Your task to perform on an android device: What's the news in Ecuador? Image 0: 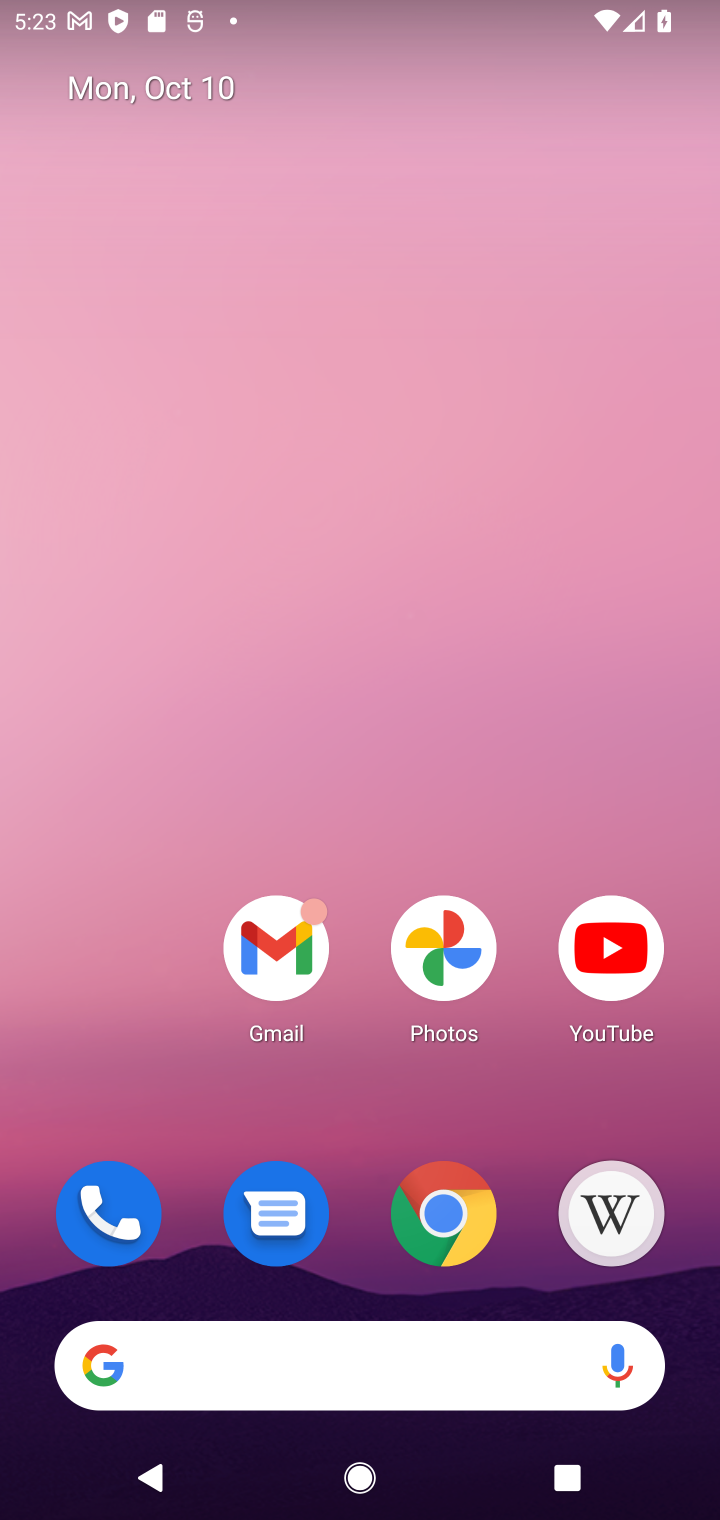
Step 0: click (245, 1388)
Your task to perform on an android device: What's the news in Ecuador? Image 1: 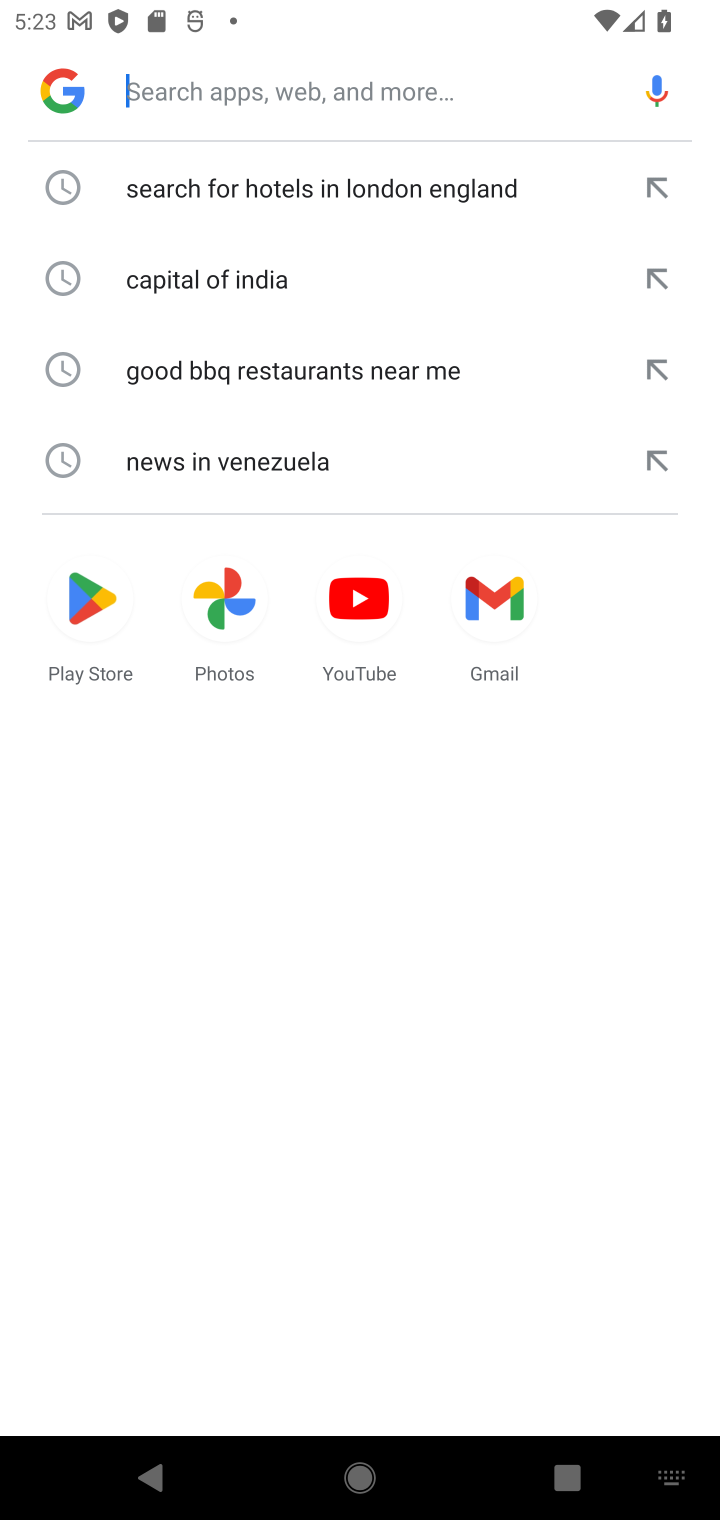
Step 1: click (219, 71)
Your task to perform on an android device: What's the news in Ecuador? Image 2: 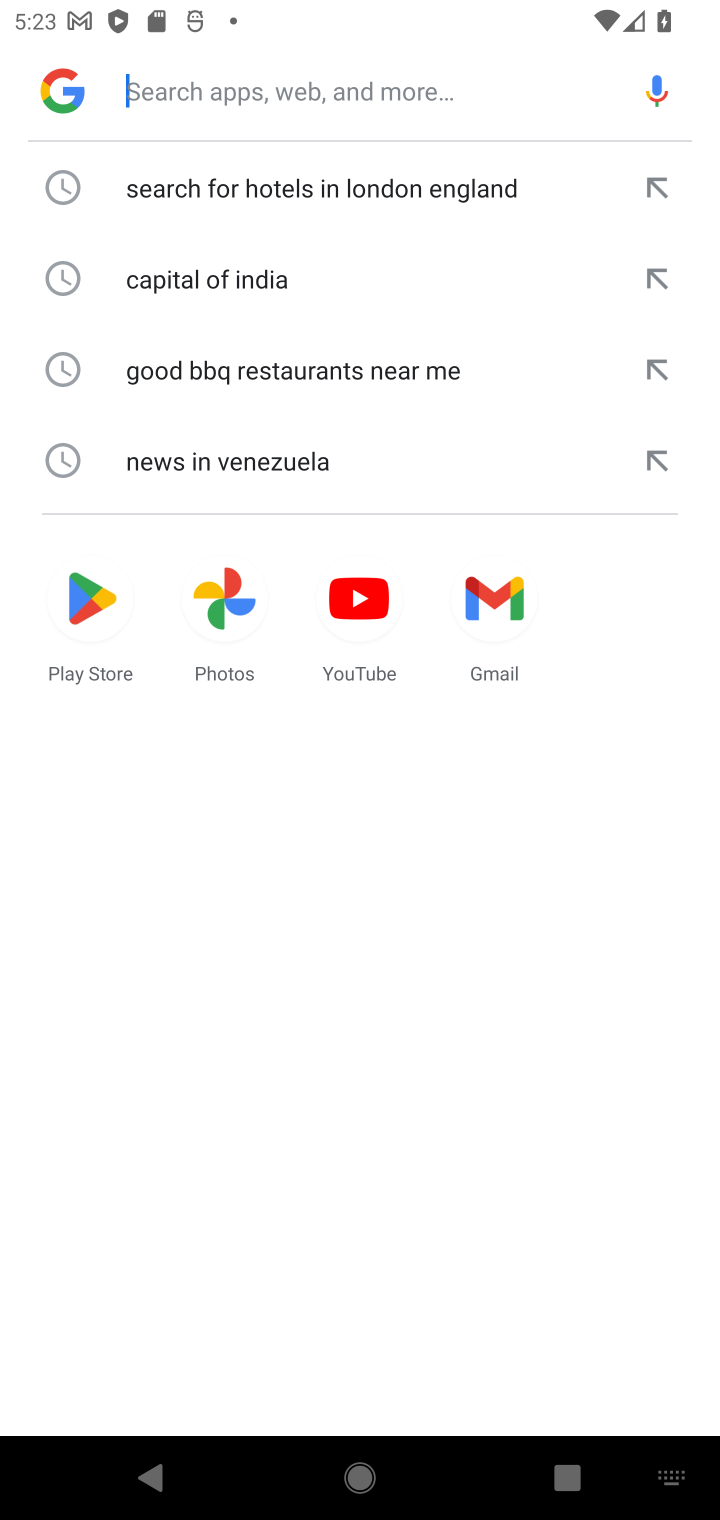
Step 2: type "What's the news in Ecuador"
Your task to perform on an android device: What's the news in Ecuador? Image 3: 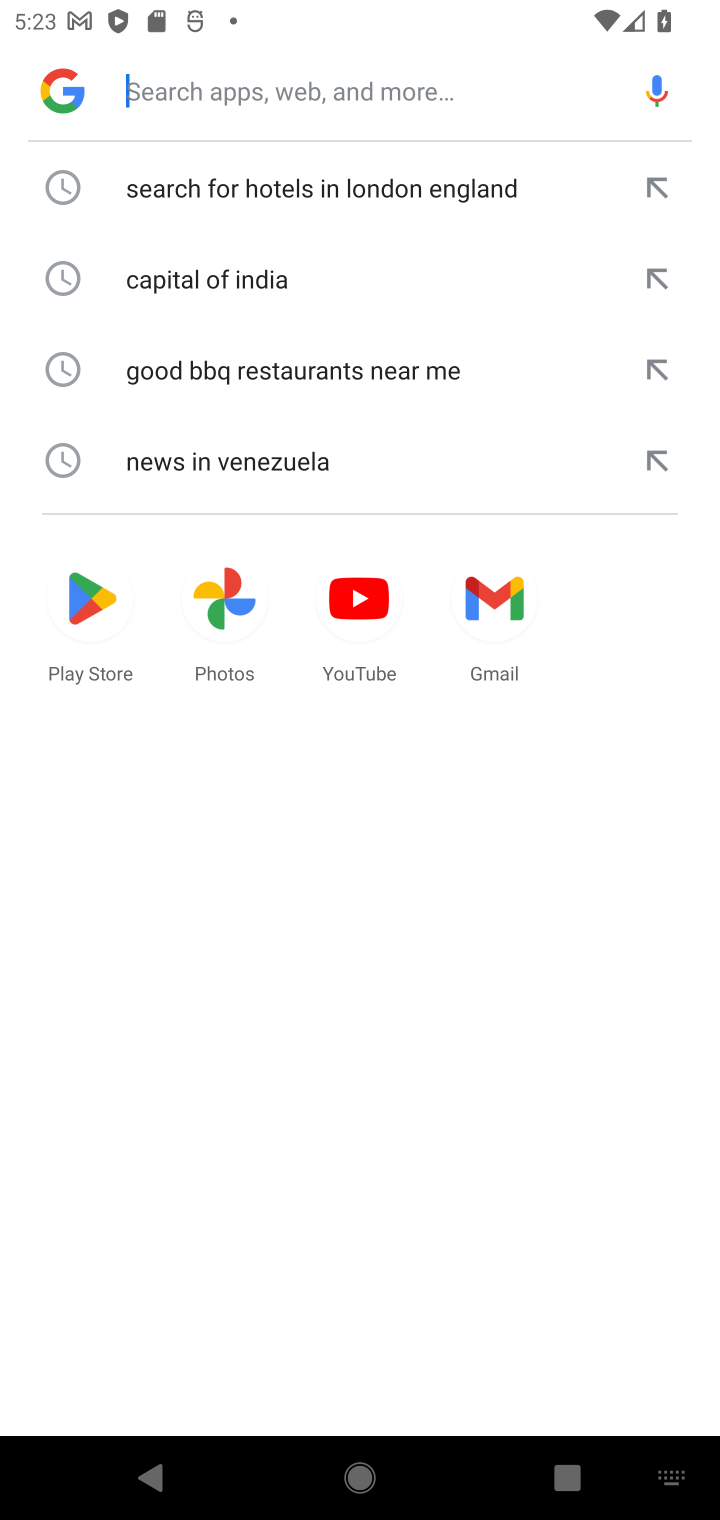
Step 3: click (540, 903)
Your task to perform on an android device: What's the news in Ecuador? Image 4: 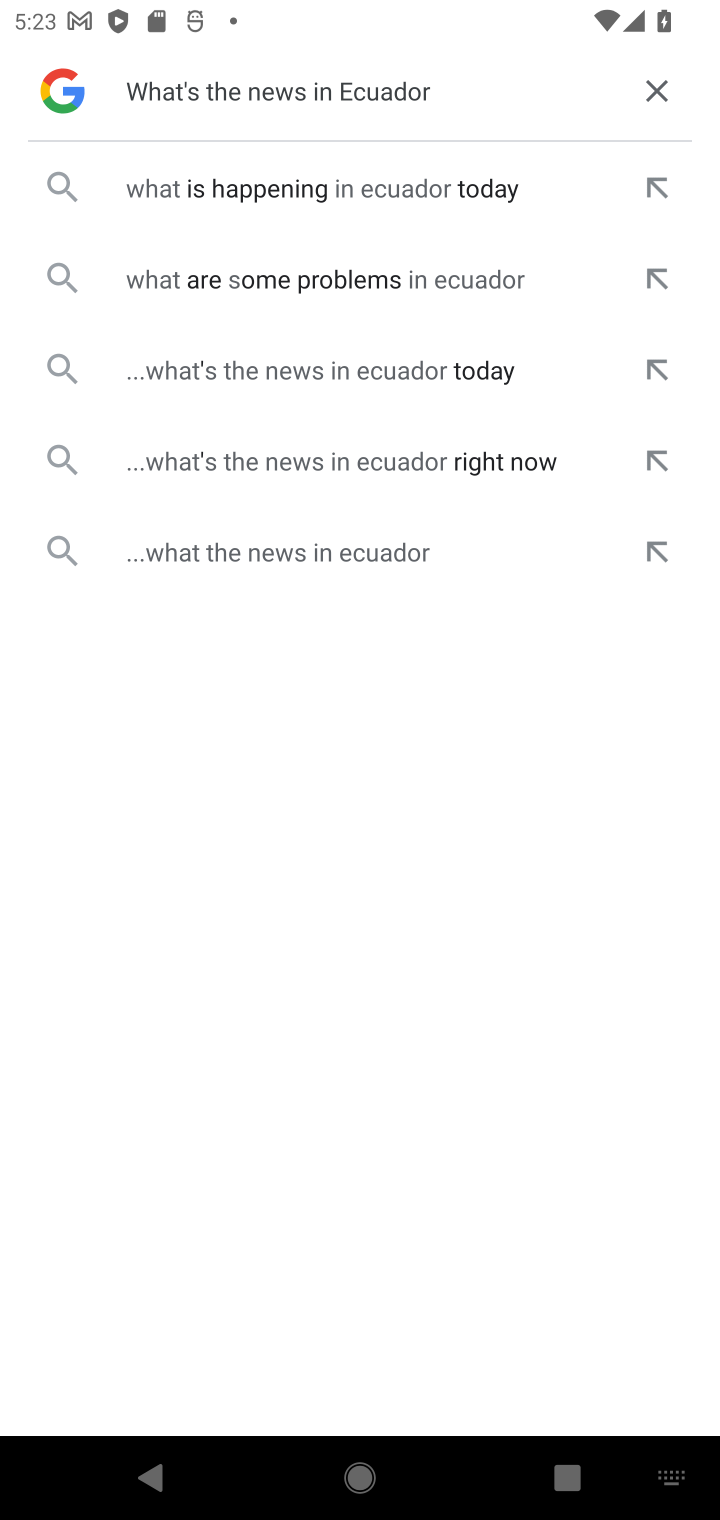
Step 4: click (355, 387)
Your task to perform on an android device: What's the news in Ecuador? Image 5: 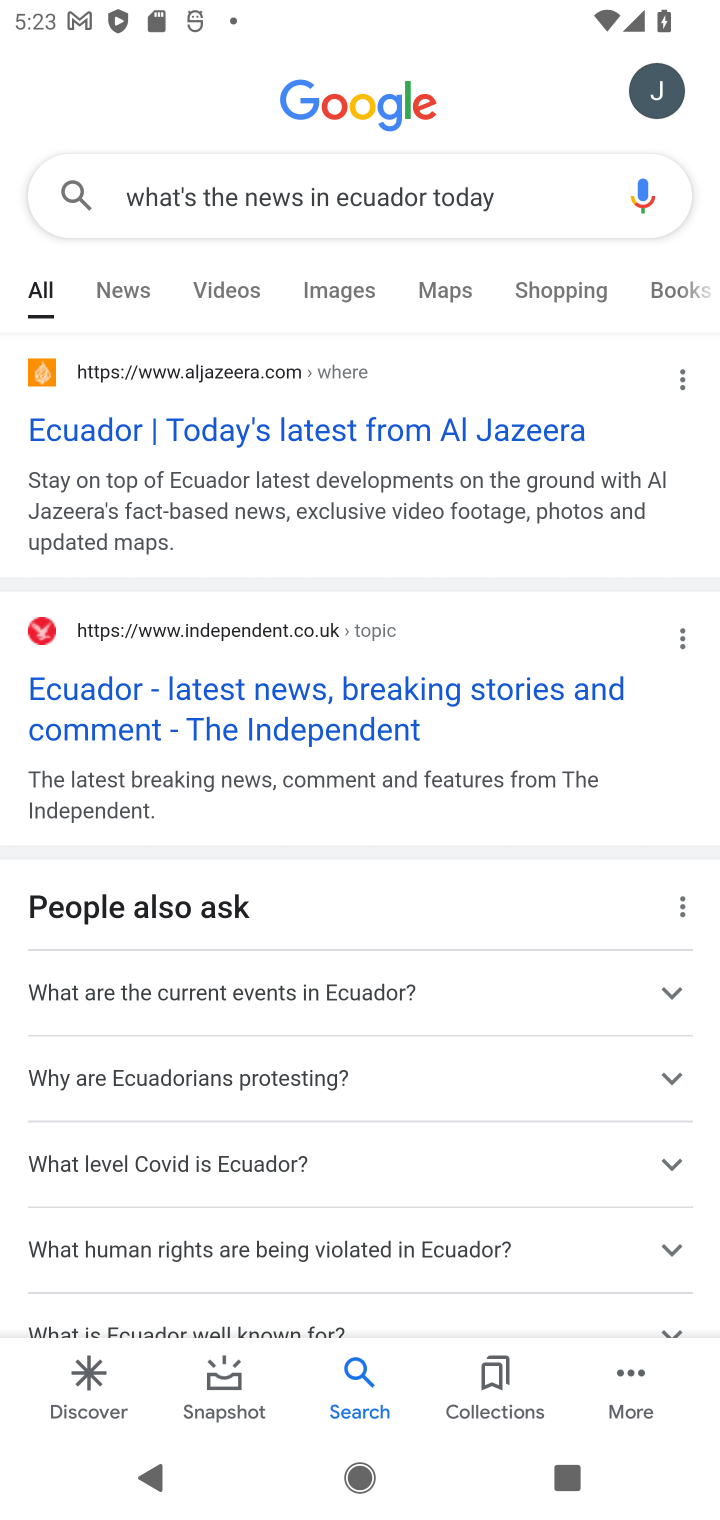
Step 5: task complete